Your task to perform on an android device: empty trash in google photos Image 0: 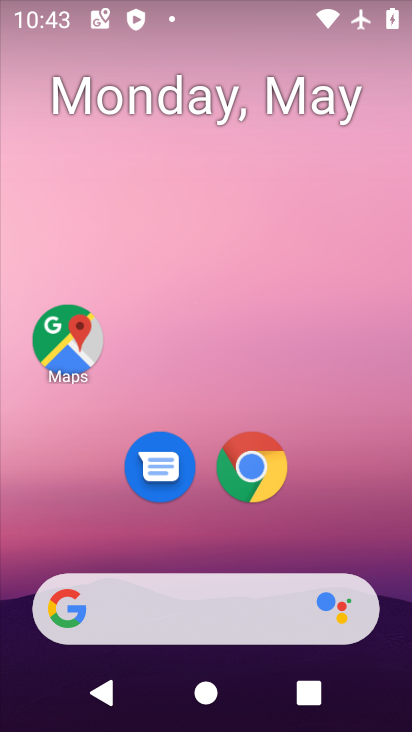
Step 0: drag from (311, 492) to (323, 63)
Your task to perform on an android device: empty trash in google photos Image 1: 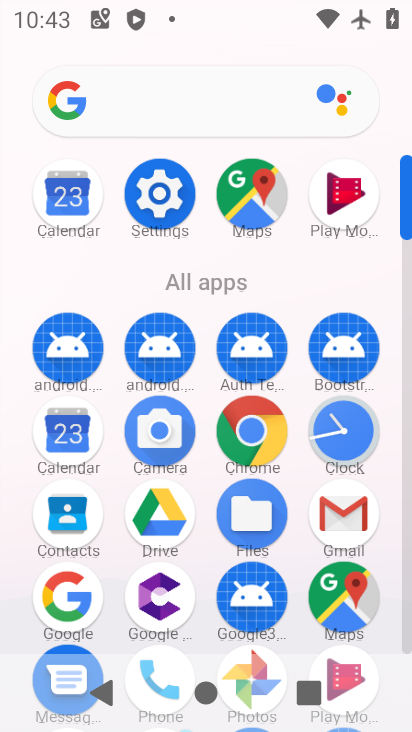
Step 1: drag from (209, 499) to (244, 258)
Your task to perform on an android device: empty trash in google photos Image 2: 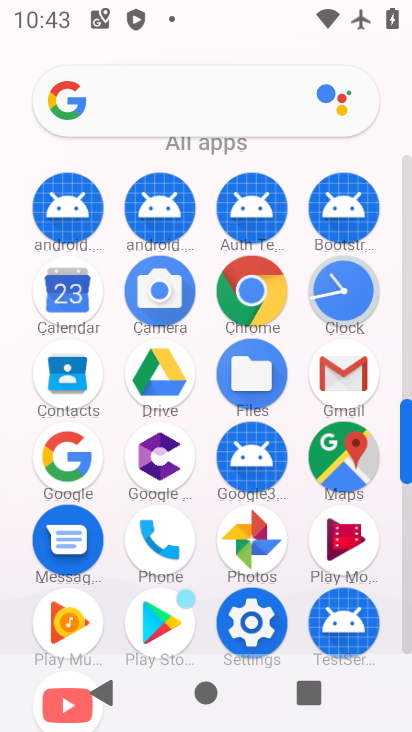
Step 2: click (256, 542)
Your task to perform on an android device: empty trash in google photos Image 3: 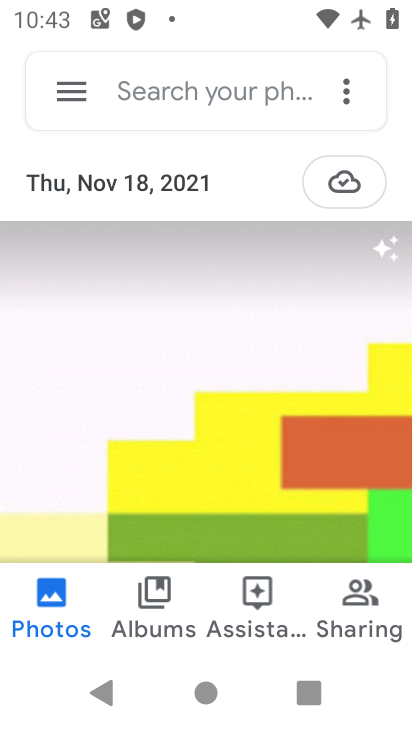
Step 3: click (68, 107)
Your task to perform on an android device: empty trash in google photos Image 4: 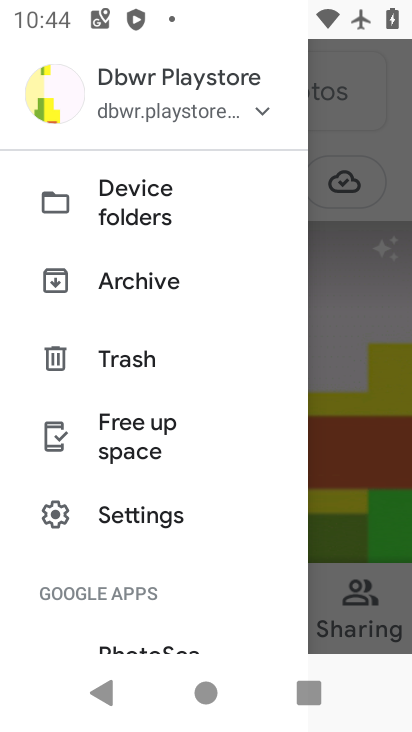
Step 4: click (134, 357)
Your task to perform on an android device: empty trash in google photos Image 5: 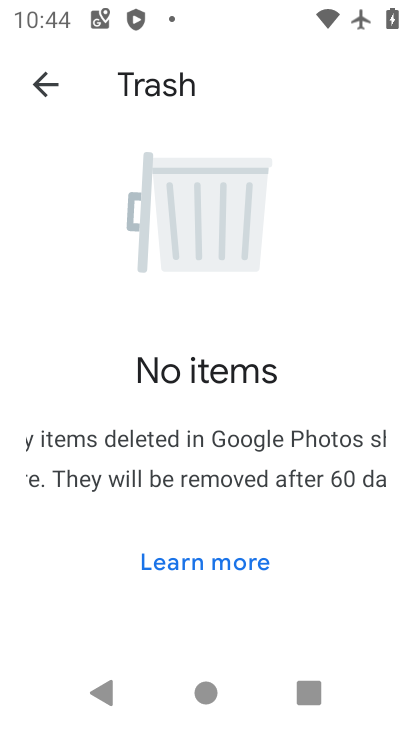
Step 5: task complete